Your task to perform on an android device: Go to display settings Image 0: 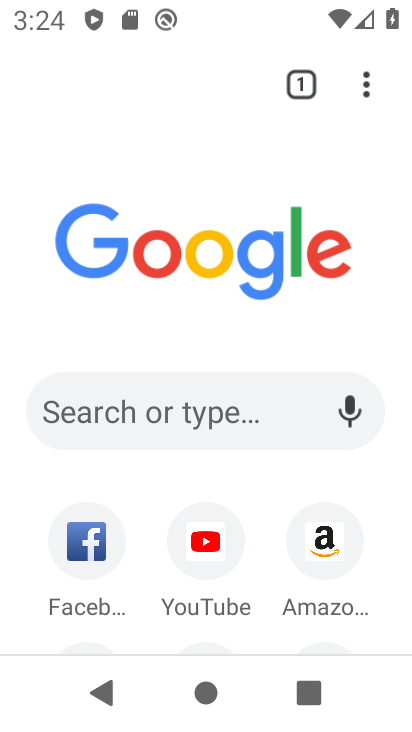
Step 0: press home button
Your task to perform on an android device: Go to display settings Image 1: 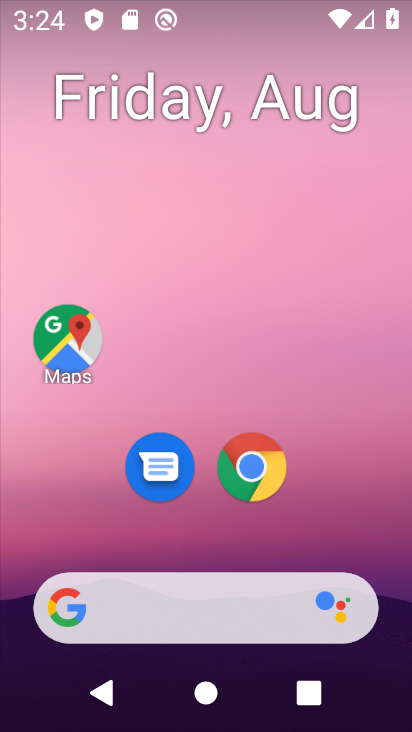
Step 1: drag from (334, 508) to (331, 72)
Your task to perform on an android device: Go to display settings Image 2: 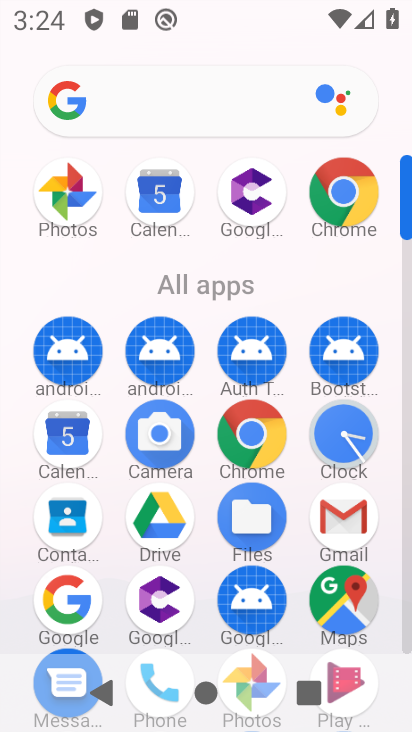
Step 2: drag from (200, 584) to (189, 77)
Your task to perform on an android device: Go to display settings Image 3: 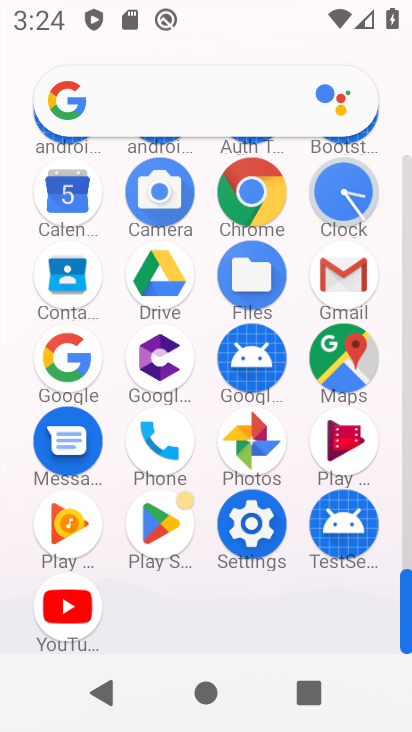
Step 3: click (236, 504)
Your task to perform on an android device: Go to display settings Image 4: 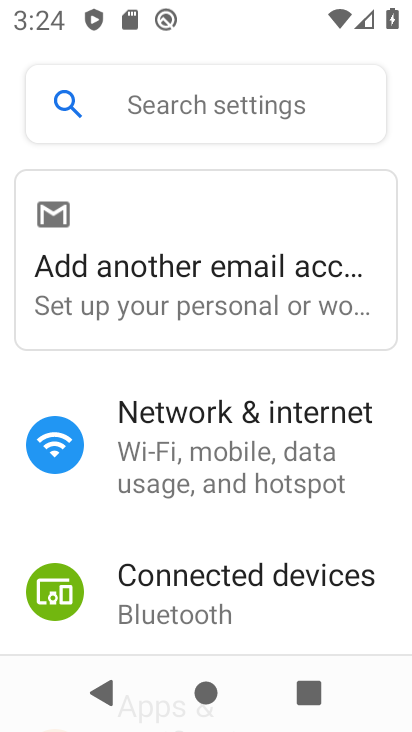
Step 4: drag from (304, 641) to (249, 125)
Your task to perform on an android device: Go to display settings Image 5: 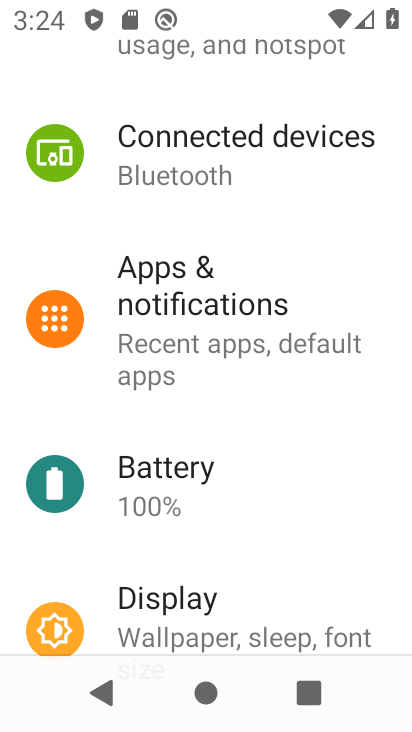
Step 5: drag from (291, 546) to (279, 143)
Your task to perform on an android device: Go to display settings Image 6: 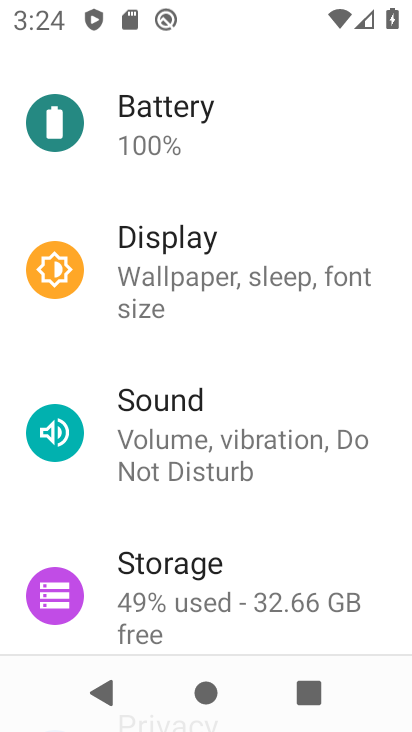
Step 6: click (210, 251)
Your task to perform on an android device: Go to display settings Image 7: 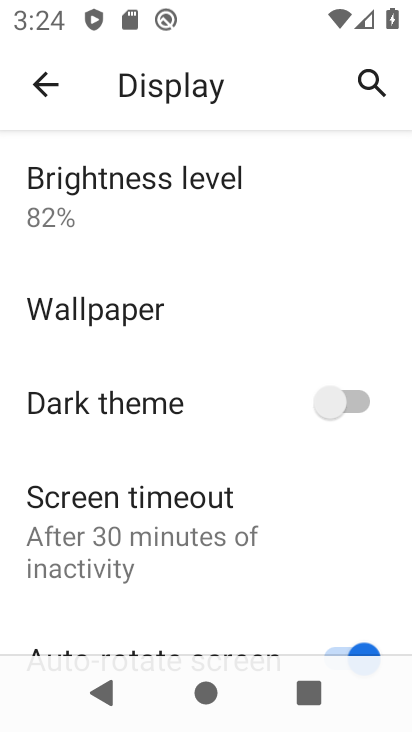
Step 7: task complete